Your task to perform on an android device: set default search engine in the chrome app Image 0: 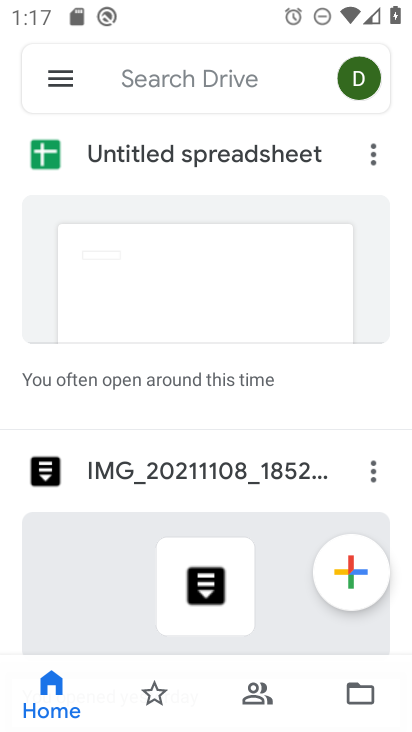
Step 0: press home button
Your task to perform on an android device: set default search engine in the chrome app Image 1: 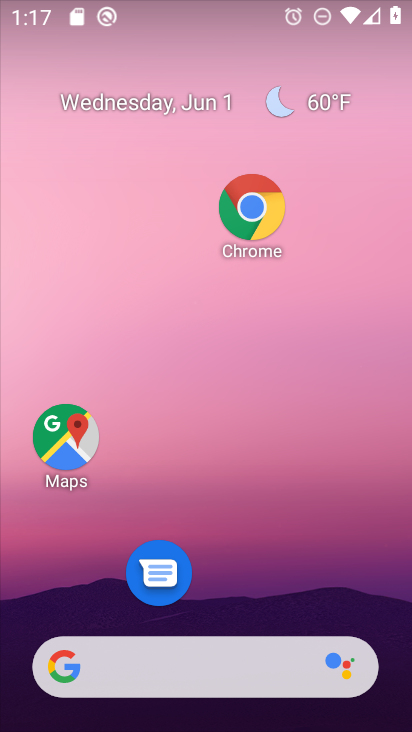
Step 1: click (239, 241)
Your task to perform on an android device: set default search engine in the chrome app Image 2: 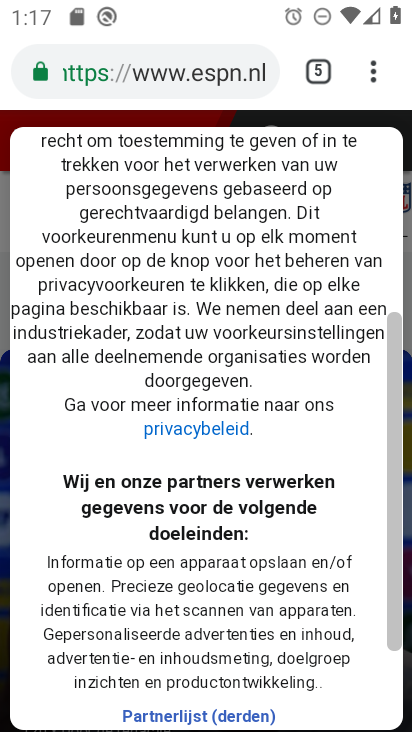
Step 2: drag from (372, 68) to (154, 582)
Your task to perform on an android device: set default search engine in the chrome app Image 3: 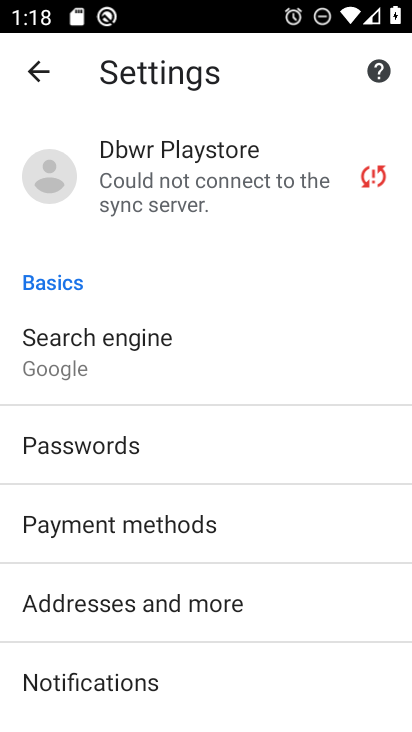
Step 3: click (140, 318)
Your task to perform on an android device: set default search engine in the chrome app Image 4: 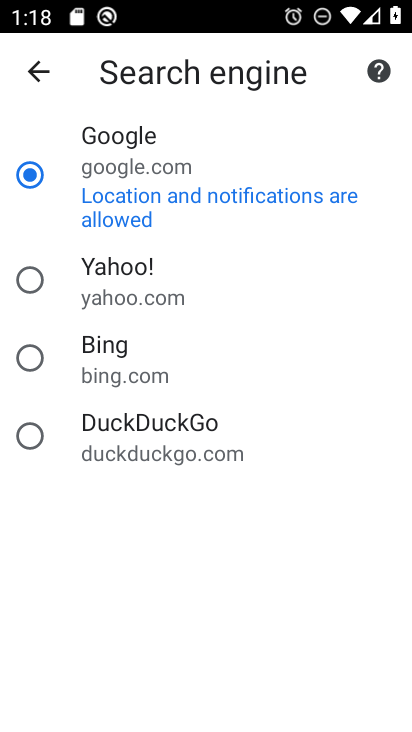
Step 4: click (112, 288)
Your task to perform on an android device: set default search engine in the chrome app Image 5: 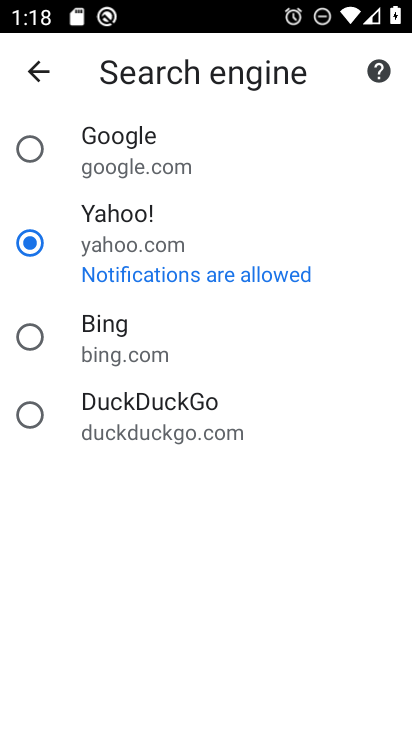
Step 5: task complete